Your task to perform on an android device: stop showing notifications on the lock screen Image 0: 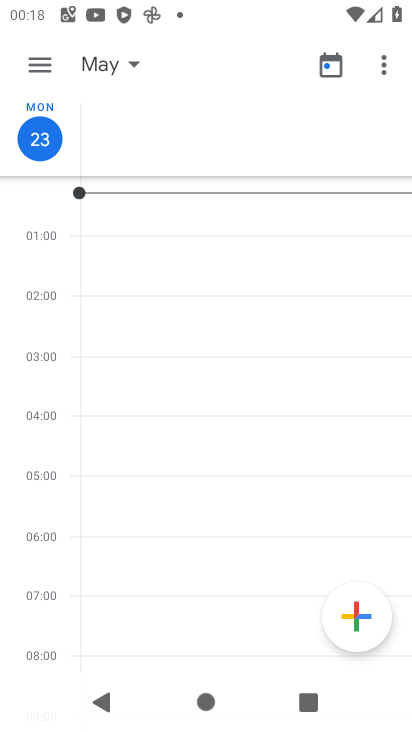
Step 0: press home button
Your task to perform on an android device: stop showing notifications on the lock screen Image 1: 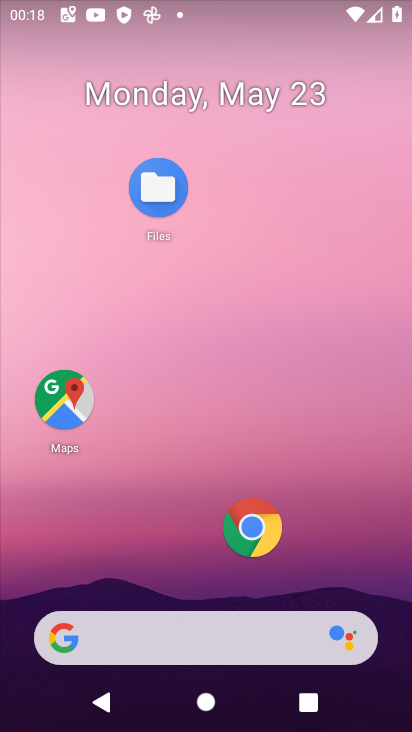
Step 1: drag from (336, 519) to (289, 137)
Your task to perform on an android device: stop showing notifications on the lock screen Image 2: 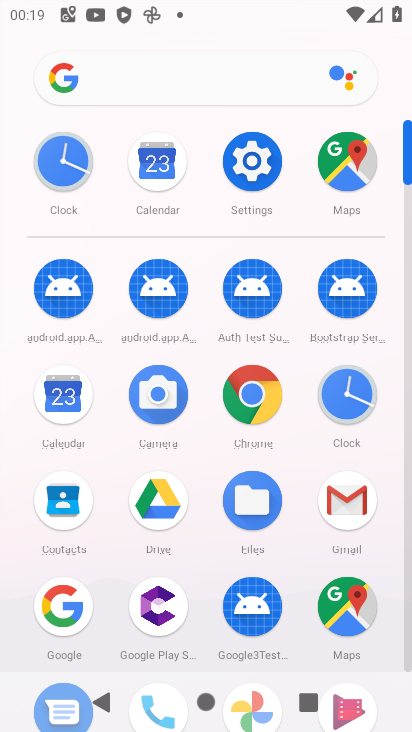
Step 2: click (250, 164)
Your task to perform on an android device: stop showing notifications on the lock screen Image 3: 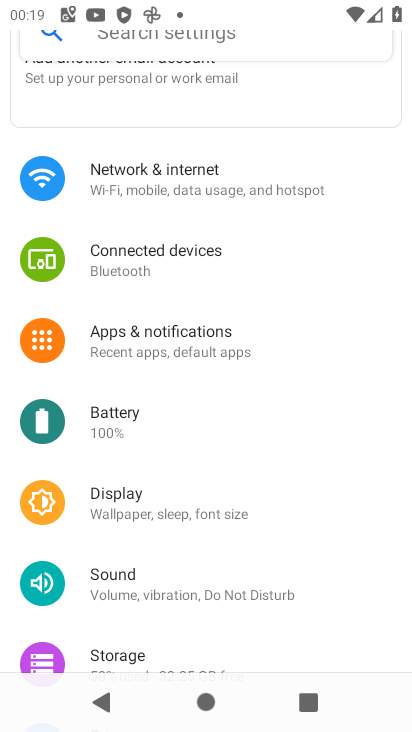
Step 3: click (156, 327)
Your task to perform on an android device: stop showing notifications on the lock screen Image 4: 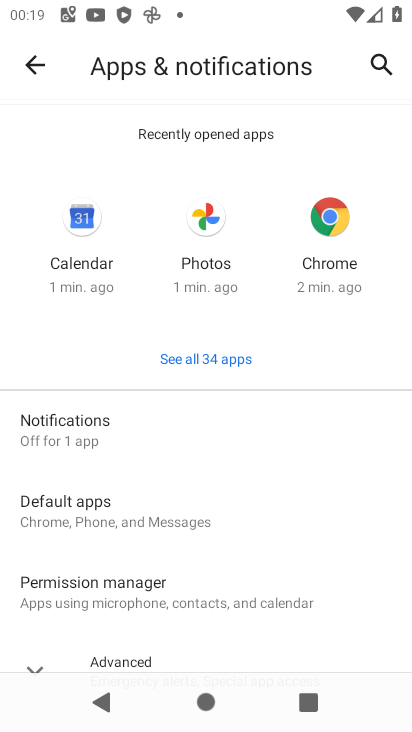
Step 4: drag from (230, 475) to (181, 110)
Your task to perform on an android device: stop showing notifications on the lock screen Image 5: 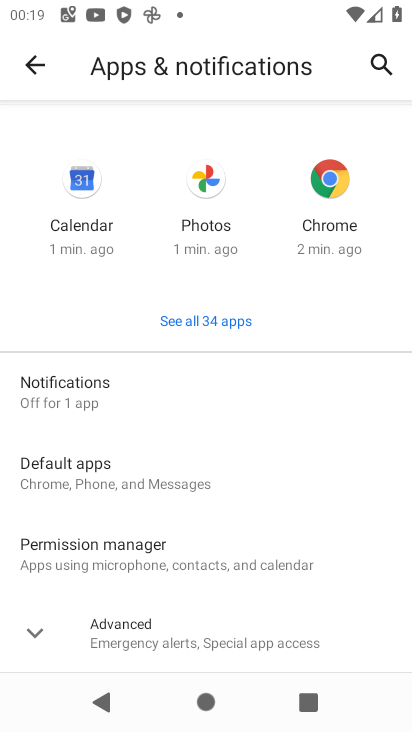
Step 5: click (48, 383)
Your task to perform on an android device: stop showing notifications on the lock screen Image 6: 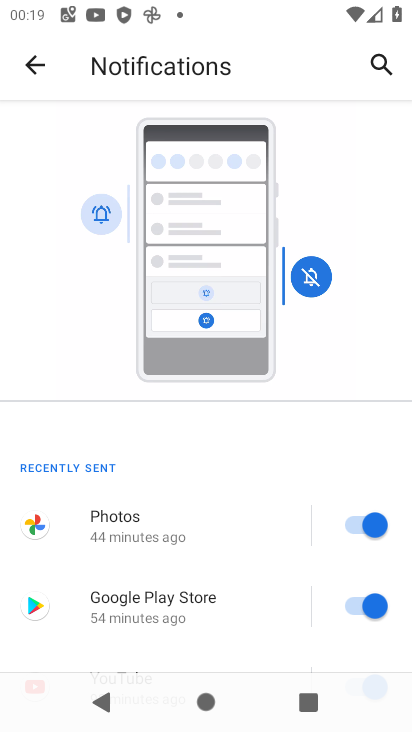
Step 6: drag from (217, 447) to (196, 176)
Your task to perform on an android device: stop showing notifications on the lock screen Image 7: 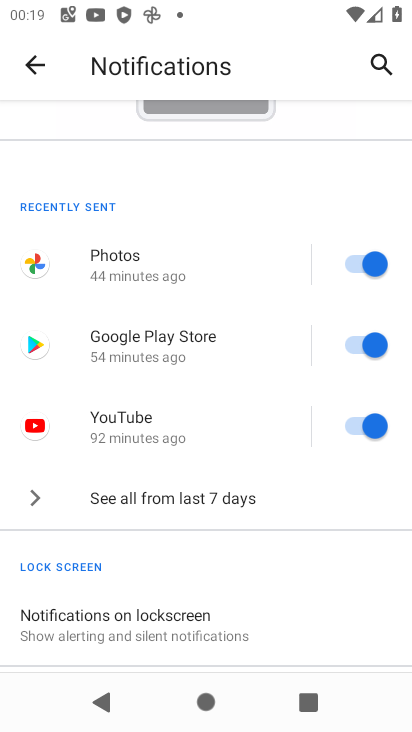
Step 7: click (142, 615)
Your task to perform on an android device: stop showing notifications on the lock screen Image 8: 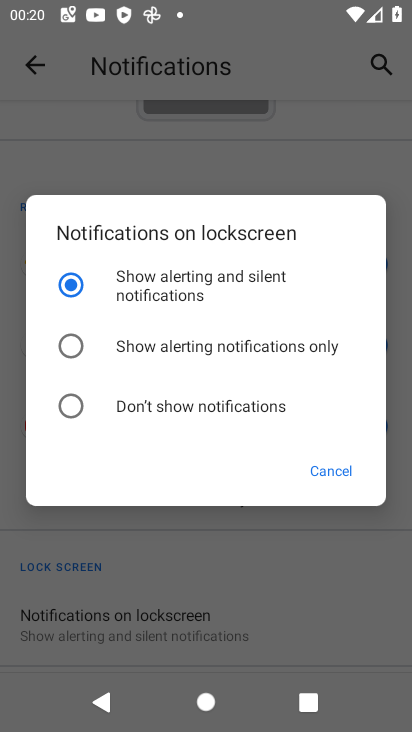
Step 8: click (64, 399)
Your task to perform on an android device: stop showing notifications on the lock screen Image 9: 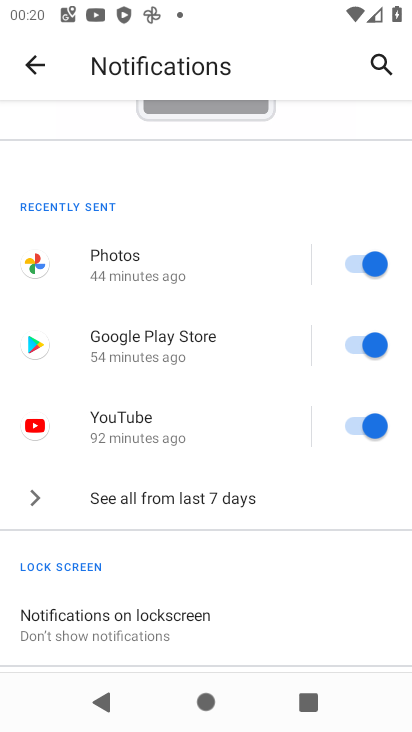
Step 9: task complete